Your task to perform on an android device: Open my contact list Image 0: 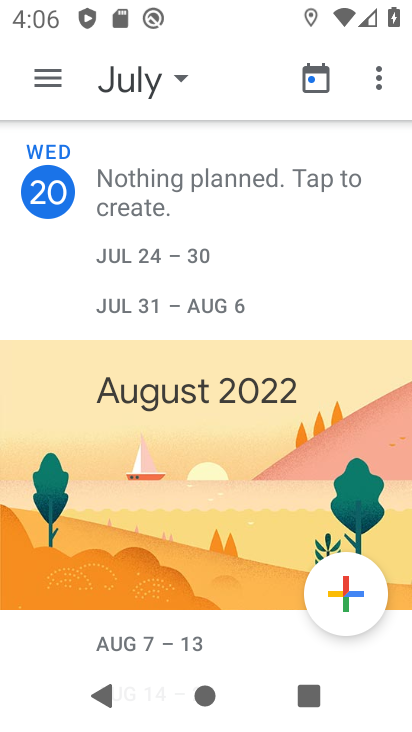
Step 0: press back button
Your task to perform on an android device: Open my contact list Image 1: 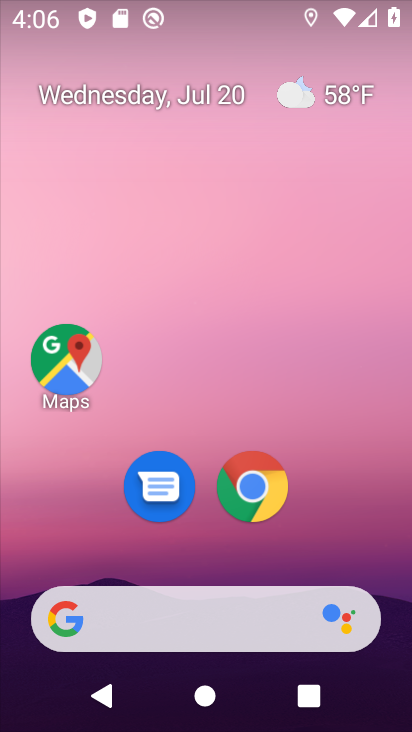
Step 1: drag from (98, 582) to (240, 79)
Your task to perform on an android device: Open my contact list Image 2: 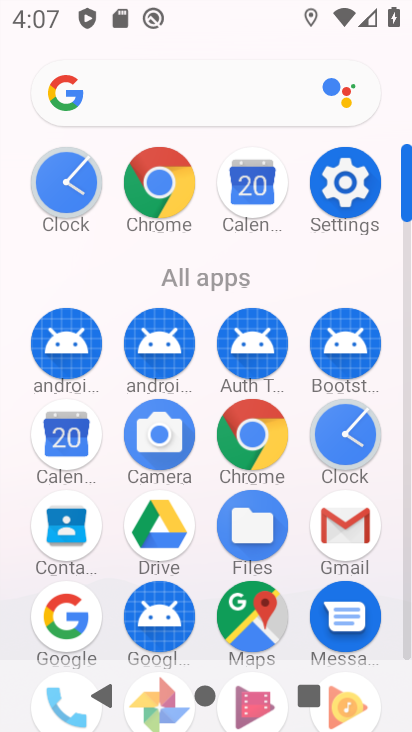
Step 2: click (65, 520)
Your task to perform on an android device: Open my contact list Image 3: 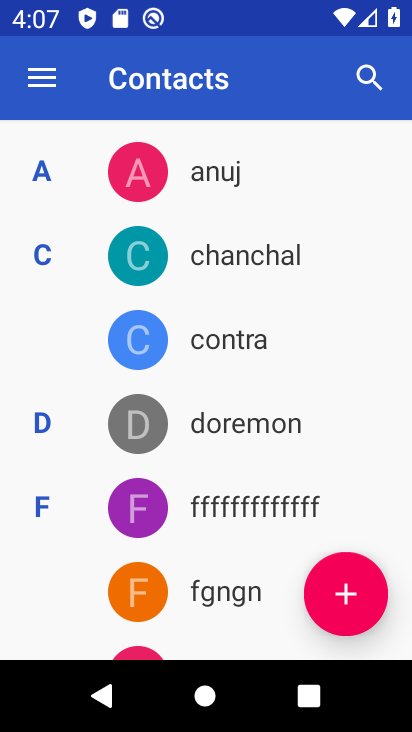
Step 3: task complete